Your task to perform on an android device: set the timer Image 0: 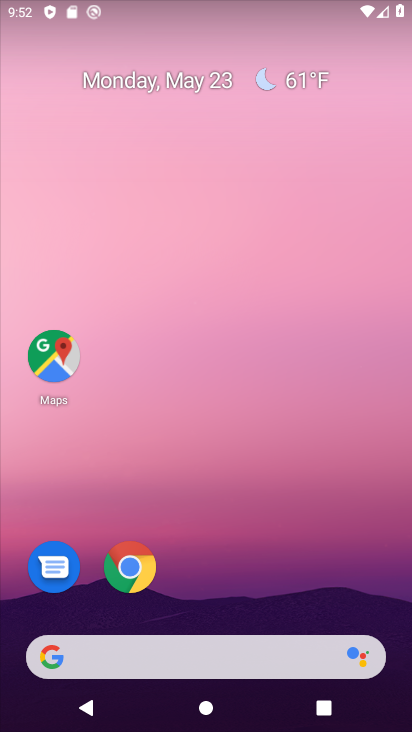
Step 0: drag from (189, 624) to (288, 188)
Your task to perform on an android device: set the timer Image 1: 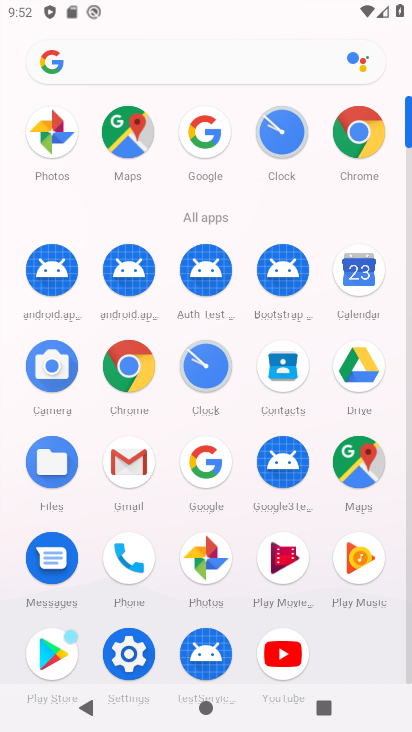
Step 1: click (210, 389)
Your task to perform on an android device: set the timer Image 2: 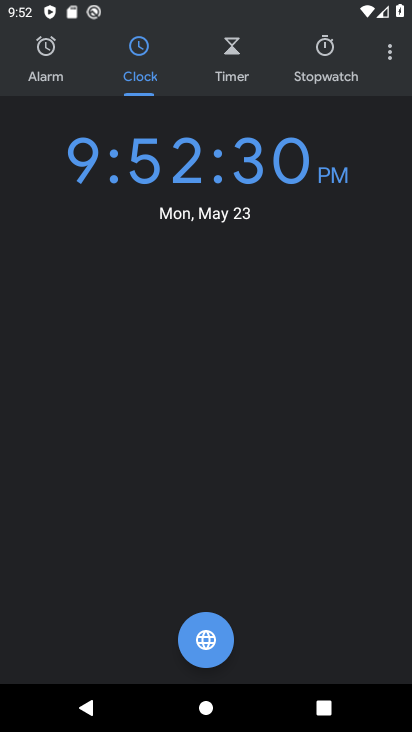
Step 2: click (249, 69)
Your task to perform on an android device: set the timer Image 3: 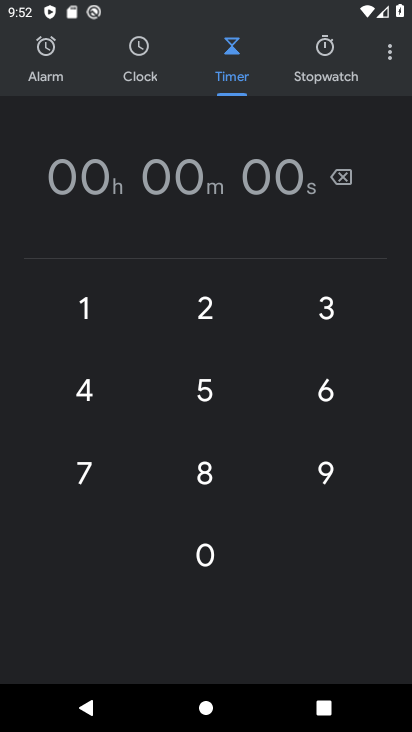
Step 3: click (207, 304)
Your task to perform on an android device: set the timer Image 4: 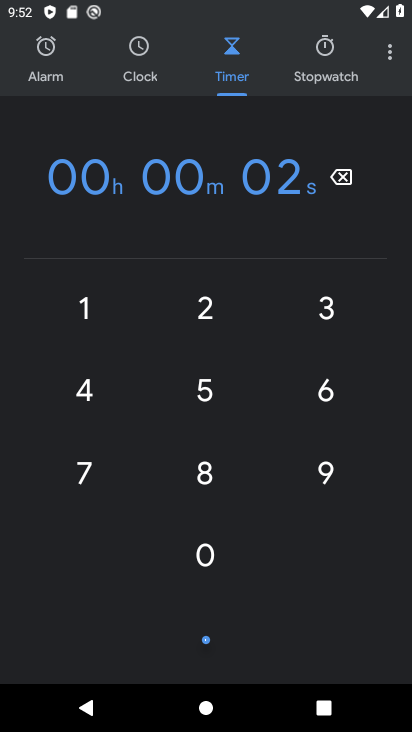
Step 4: click (200, 397)
Your task to perform on an android device: set the timer Image 5: 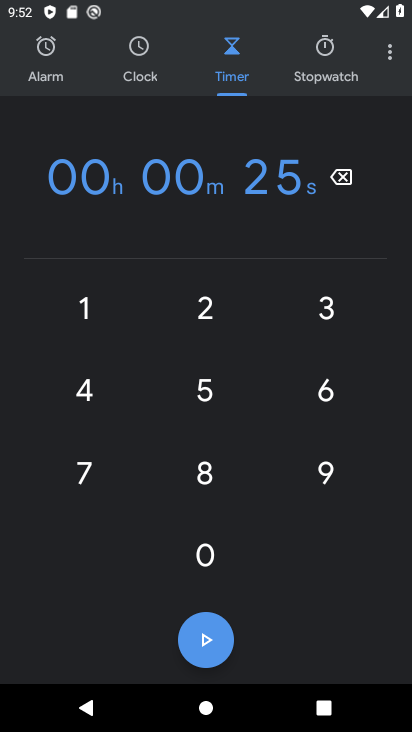
Step 5: click (214, 648)
Your task to perform on an android device: set the timer Image 6: 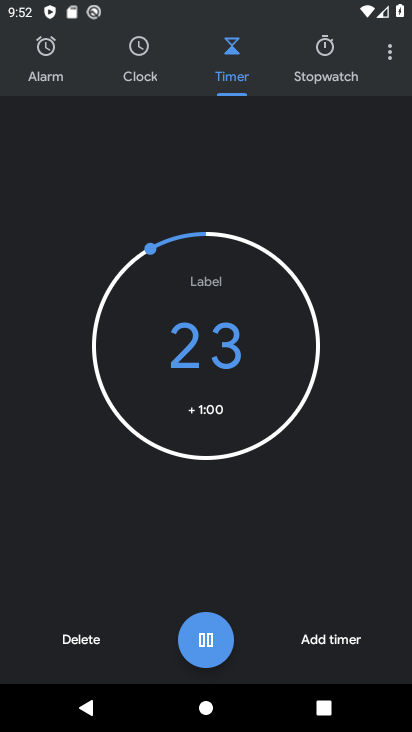
Step 6: task complete